Your task to perform on an android device: change text size in settings app Image 0: 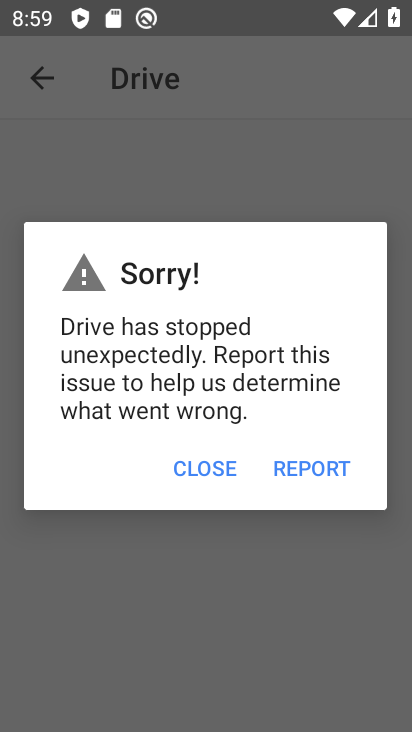
Step 0: press home button
Your task to perform on an android device: change text size in settings app Image 1: 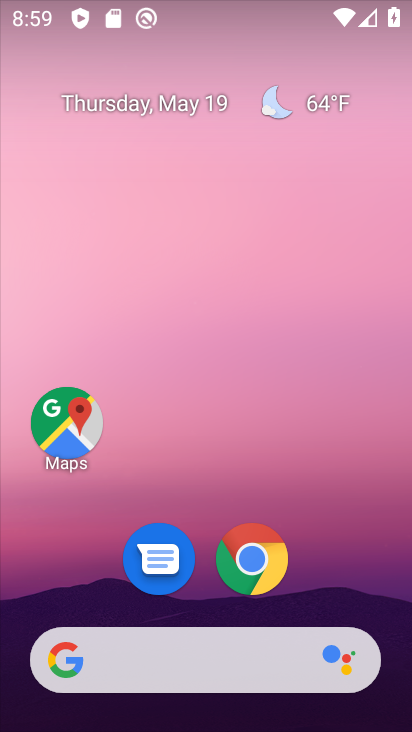
Step 1: drag from (232, 728) to (234, 267)
Your task to perform on an android device: change text size in settings app Image 2: 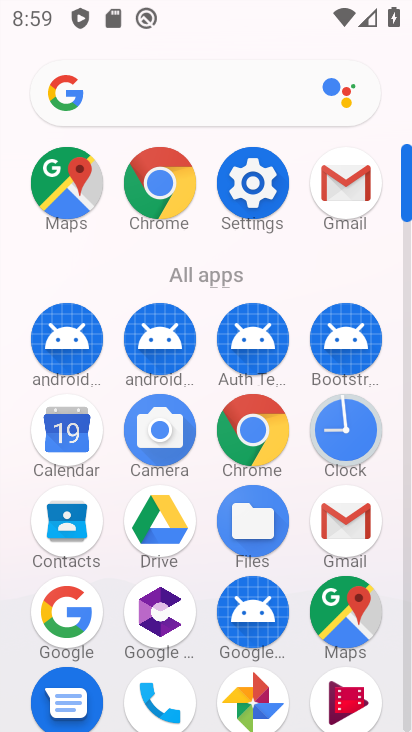
Step 2: click (254, 186)
Your task to perform on an android device: change text size in settings app Image 3: 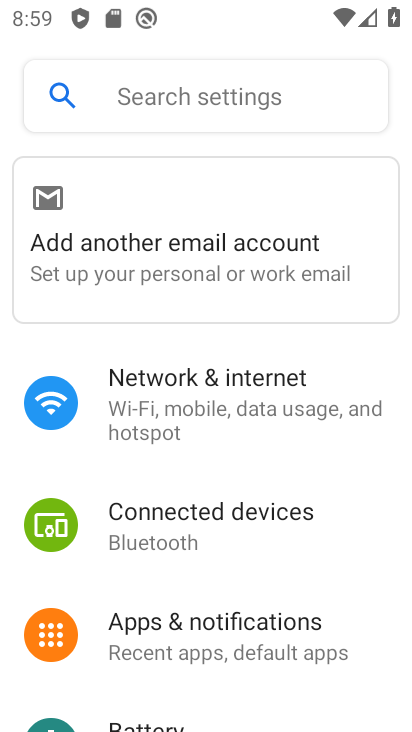
Step 3: drag from (165, 690) to (191, 393)
Your task to perform on an android device: change text size in settings app Image 4: 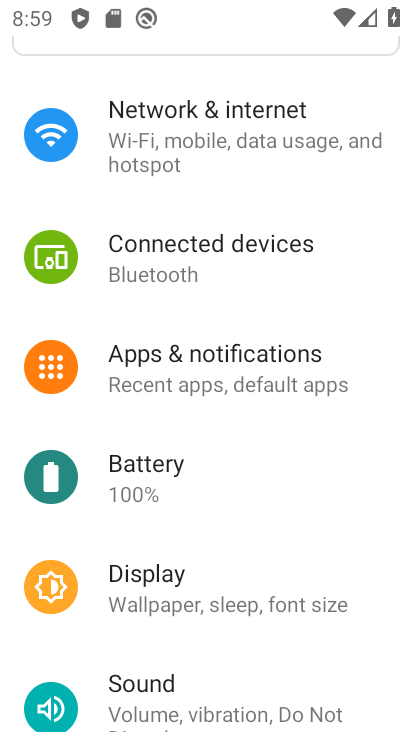
Step 4: drag from (195, 647) to (202, 411)
Your task to perform on an android device: change text size in settings app Image 5: 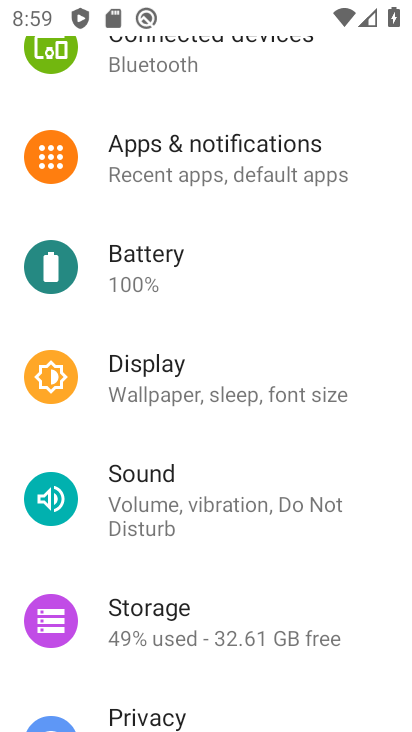
Step 5: drag from (218, 648) to (218, 507)
Your task to perform on an android device: change text size in settings app Image 6: 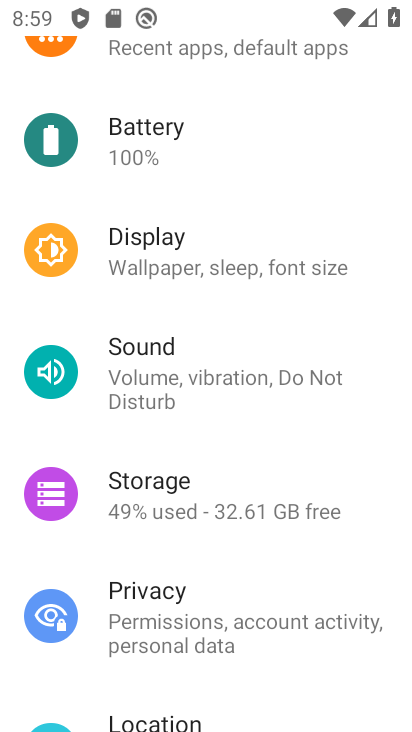
Step 6: click (189, 265)
Your task to perform on an android device: change text size in settings app Image 7: 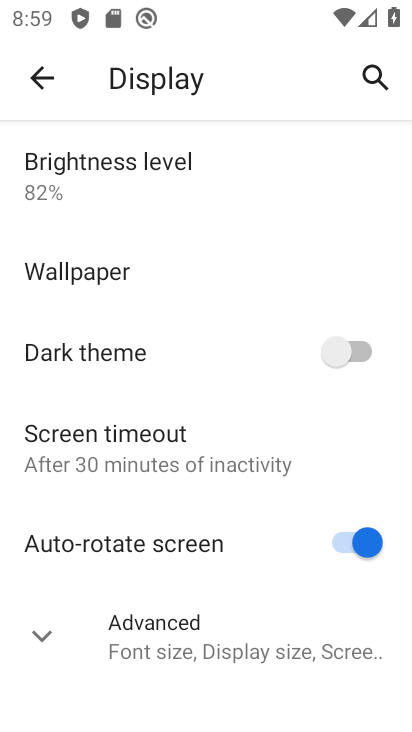
Step 7: click (205, 636)
Your task to perform on an android device: change text size in settings app Image 8: 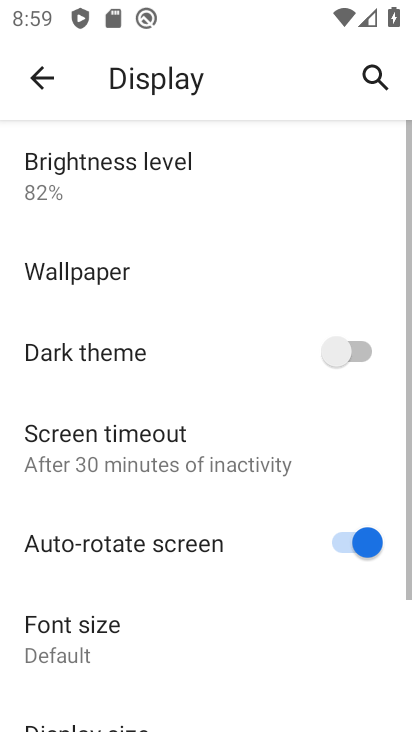
Step 8: drag from (200, 653) to (218, 447)
Your task to perform on an android device: change text size in settings app Image 9: 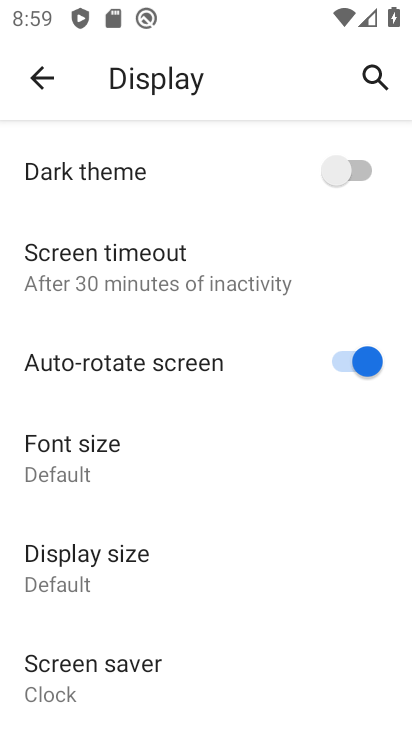
Step 9: click (75, 465)
Your task to perform on an android device: change text size in settings app Image 10: 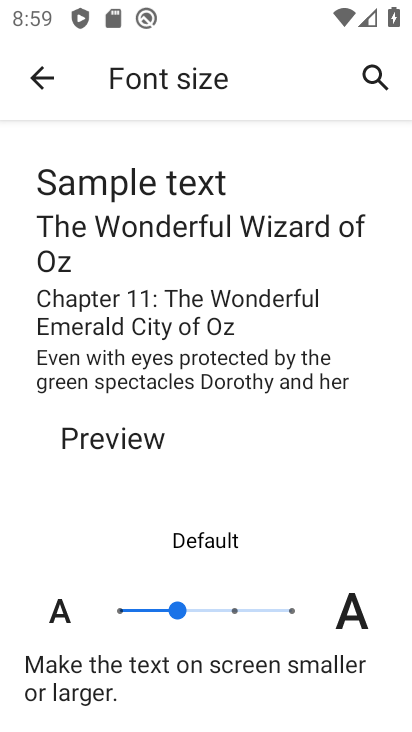
Step 10: click (230, 610)
Your task to perform on an android device: change text size in settings app Image 11: 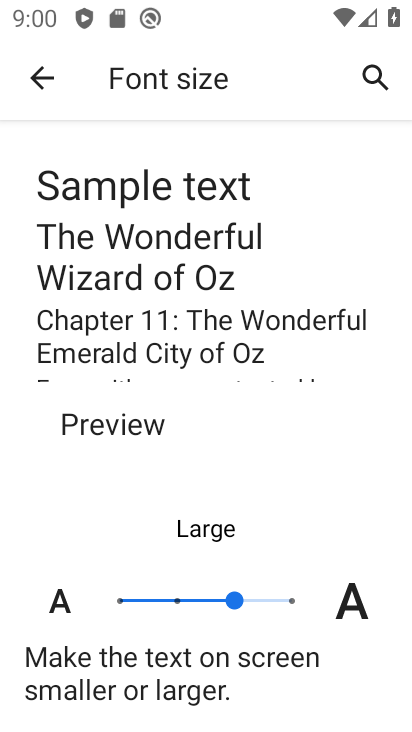
Step 11: task complete